Your task to perform on an android device: open chrome and create a bookmark for the current page Image 0: 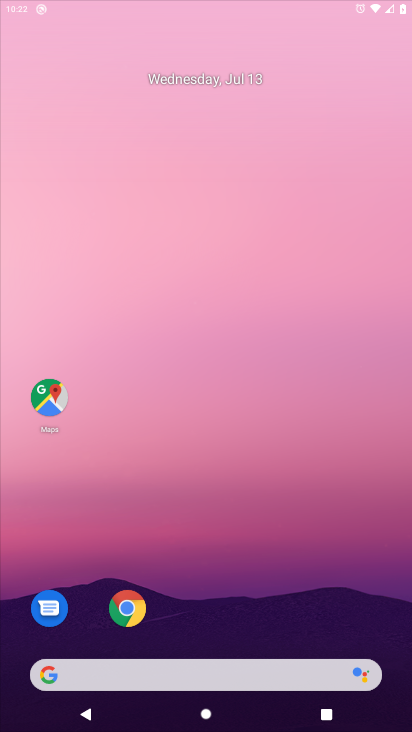
Step 0: click (185, 70)
Your task to perform on an android device: open chrome and create a bookmark for the current page Image 1: 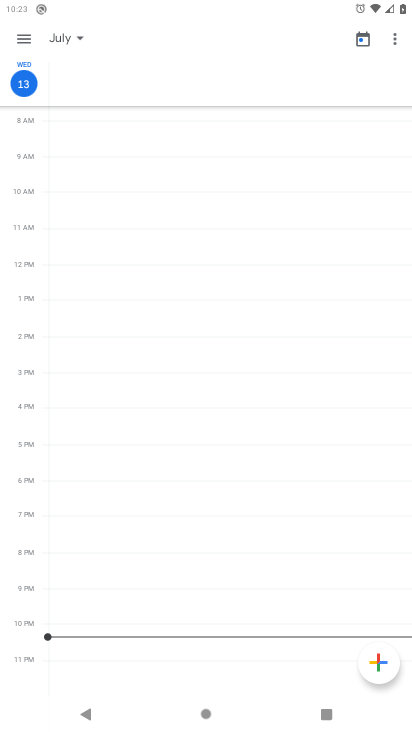
Step 1: press home button
Your task to perform on an android device: open chrome and create a bookmark for the current page Image 2: 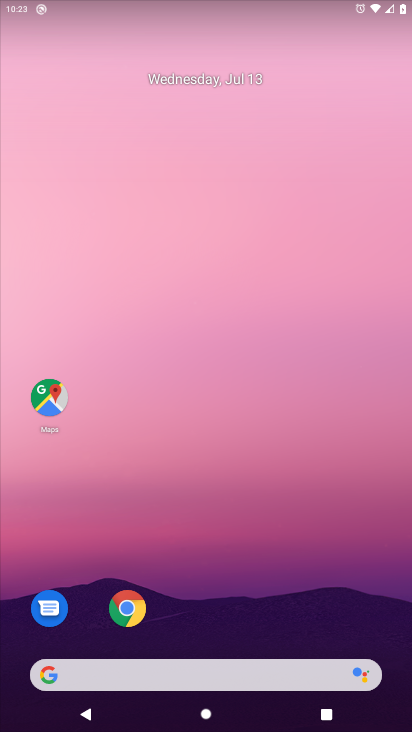
Step 2: click (127, 601)
Your task to perform on an android device: open chrome and create a bookmark for the current page Image 3: 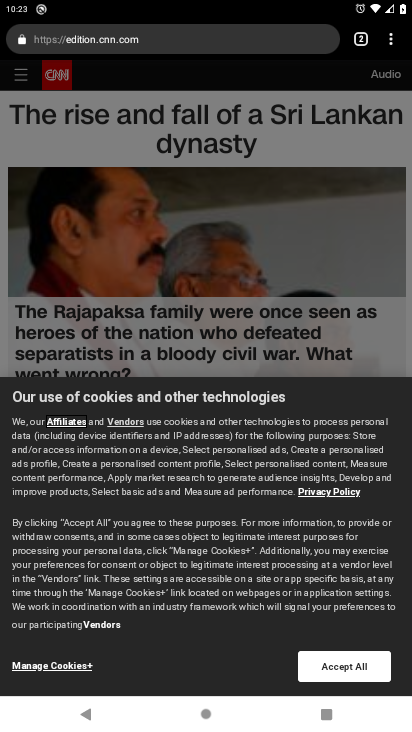
Step 3: click (392, 43)
Your task to perform on an android device: open chrome and create a bookmark for the current page Image 4: 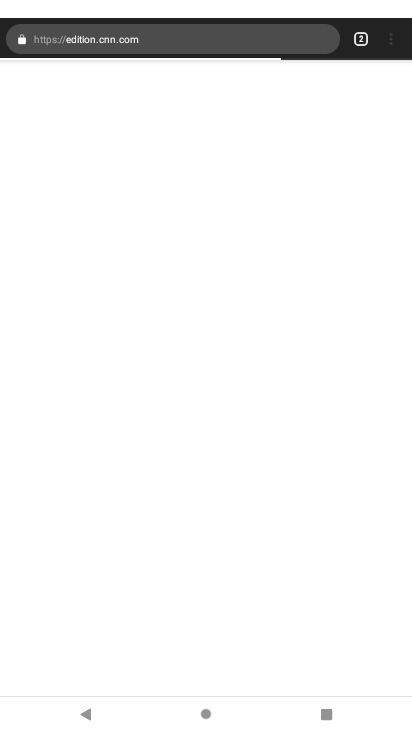
Step 4: click (392, 38)
Your task to perform on an android device: open chrome and create a bookmark for the current page Image 5: 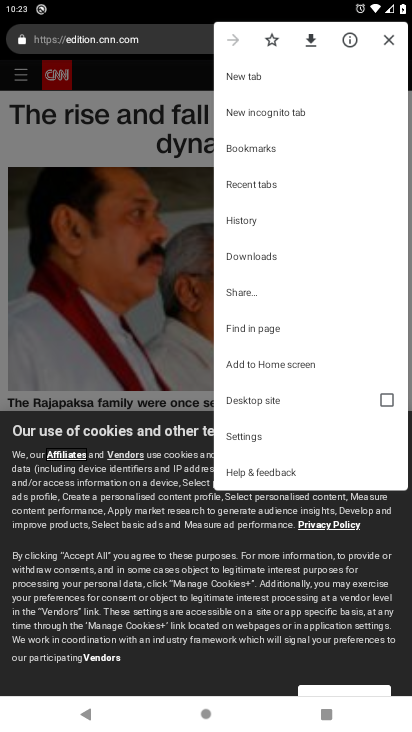
Step 5: click (258, 150)
Your task to perform on an android device: open chrome and create a bookmark for the current page Image 6: 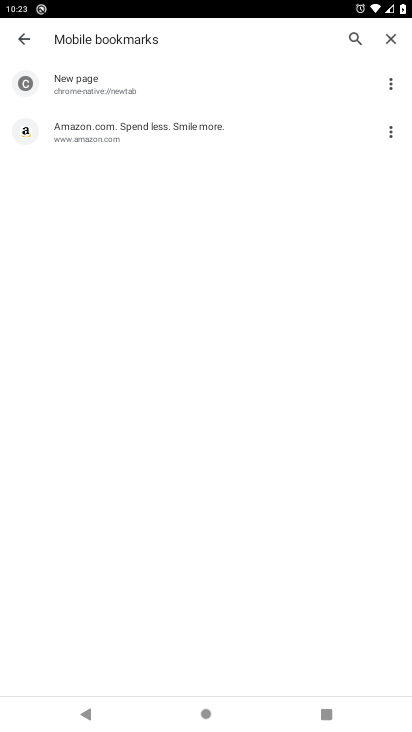
Step 6: task complete